Your task to perform on an android device: toggle notification dots Image 0: 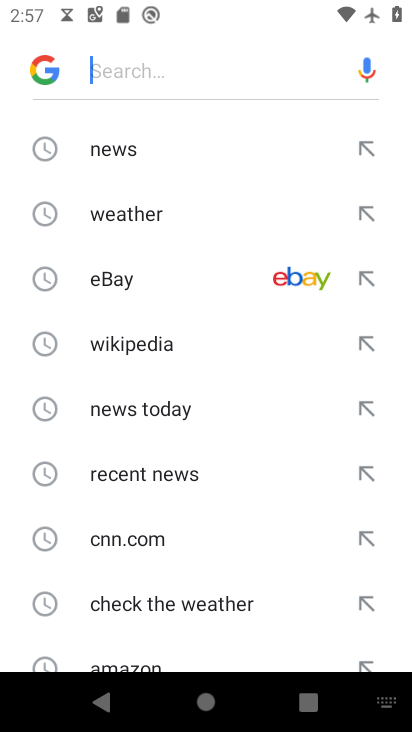
Step 0: press home button
Your task to perform on an android device: toggle notification dots Image 1: 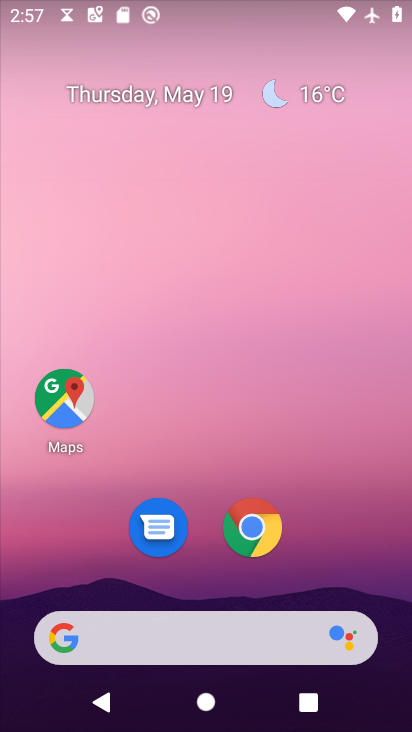
Step 1: drag from (355, 483) to (297, 0)
Your task to perform on an android device: toggle notification dots Image 2: 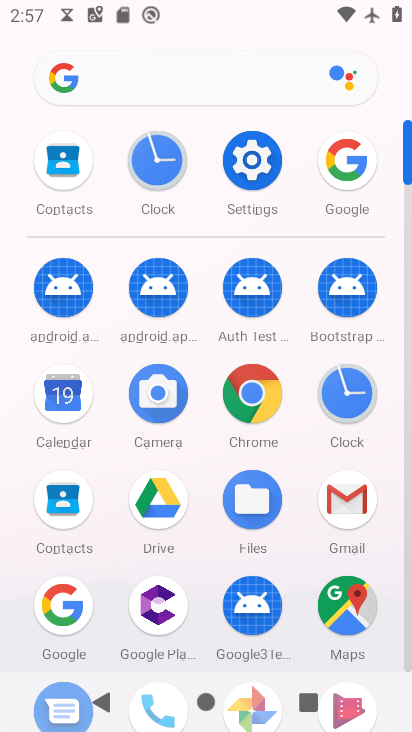
Step 2: click (258, 147)
Your task to perform on an android device: toggle notification dots Image 3: 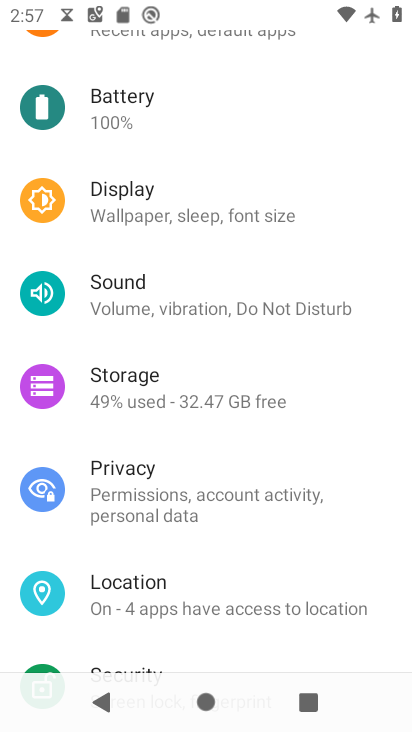
Step 3: drag from (250, 524) to (232, 163)
Your task to perform on an android device: toggle notification dots Image 4: 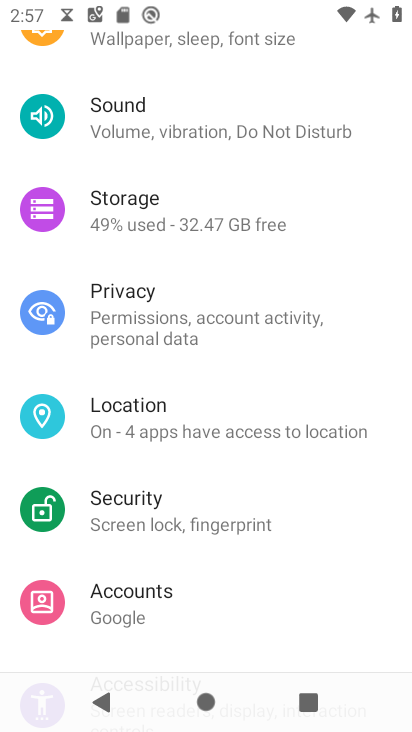
Step 4: drag from (236, 163) to (247, 662)
Your task to perform on an android device: toggle notification dots Image 5: 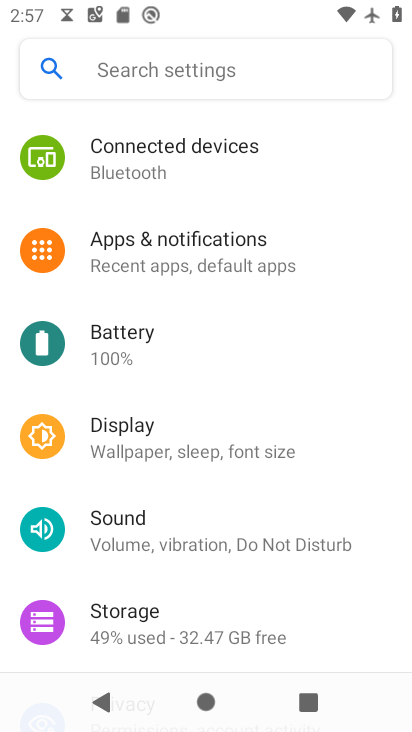
Step 5: drag from (240, 299) to (252, 495)
Your task to perform on an android device: toggle notification dots Image 6: 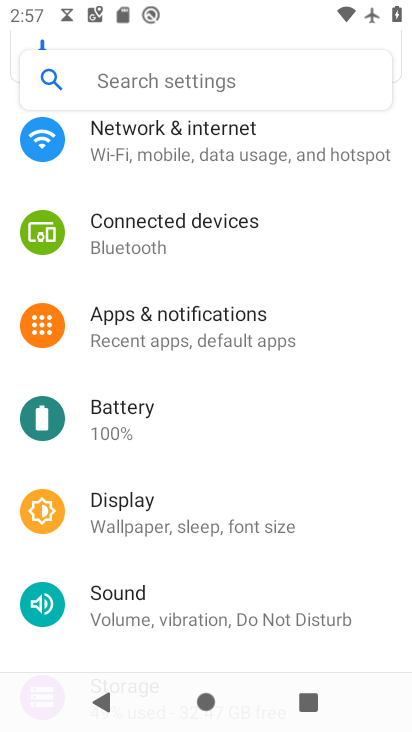
Step 6: click (248, 318)
Your task to perform on an android device: toggle notification dots Image 7: 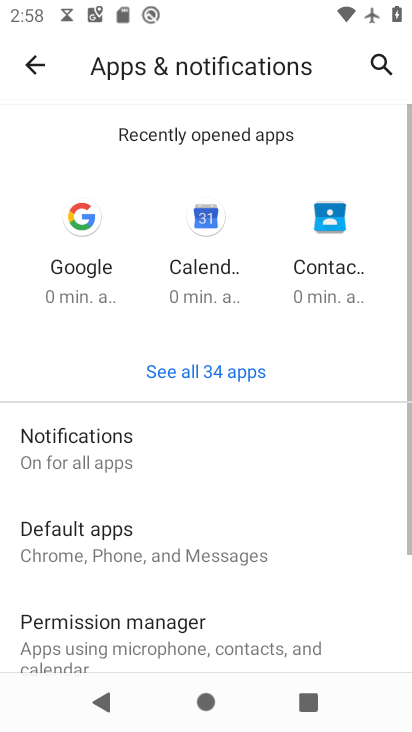
Step 7: click (206, 455)
Your task to perform on an android device: toggle notification dots Image 8: 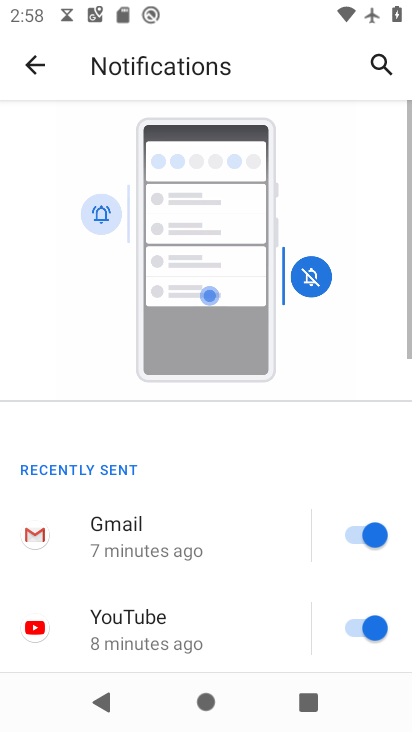
Step 8: drag from (273, 609) to (228, 156)
Your task to perform on an android device: toggle notification dots Image 9: 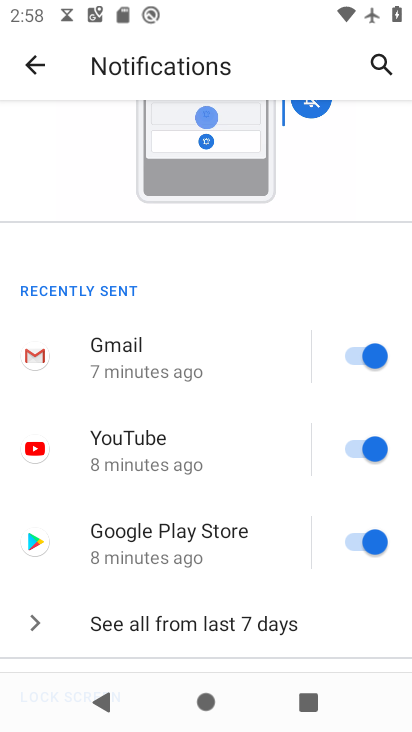
Step 9: drag from (226, 613) to (223, 228)
Your task to perform on an android device: toggle notification dots Image 10: 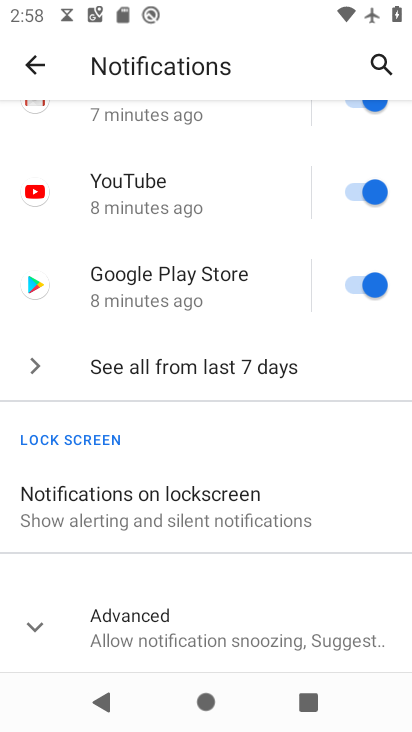
Step 10: click (211, 620)
Your task to perform on an android device: toggle notification dots Image 11: 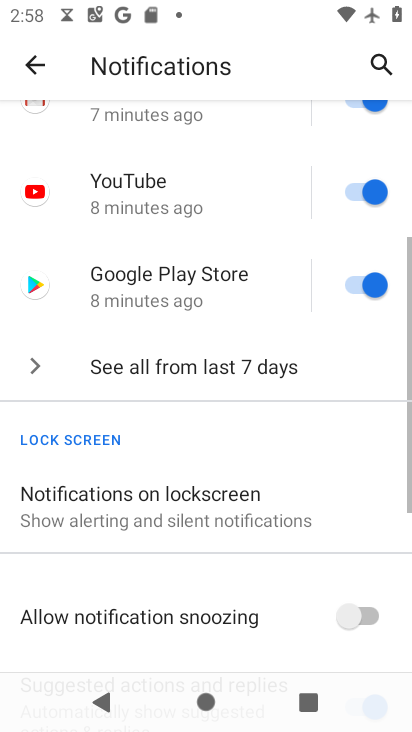
Step 11: drag from (252, 569) to (254, 117)
Your task to perform on an android device: toggle notification dots Image 12: 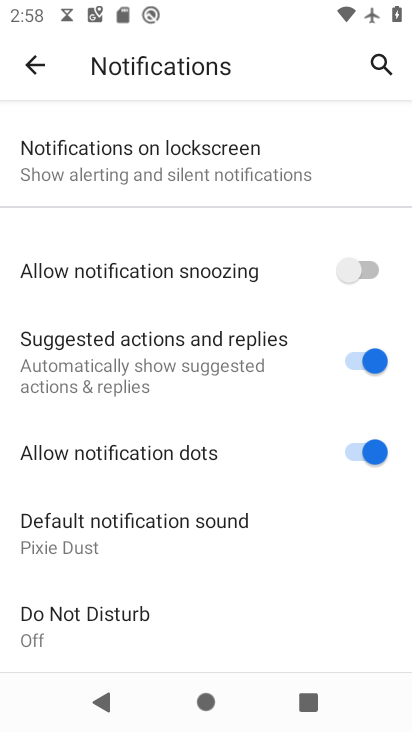
Step 12: click (363, 461)
Your task to perform on an android device: toggle notification dots Image 13: 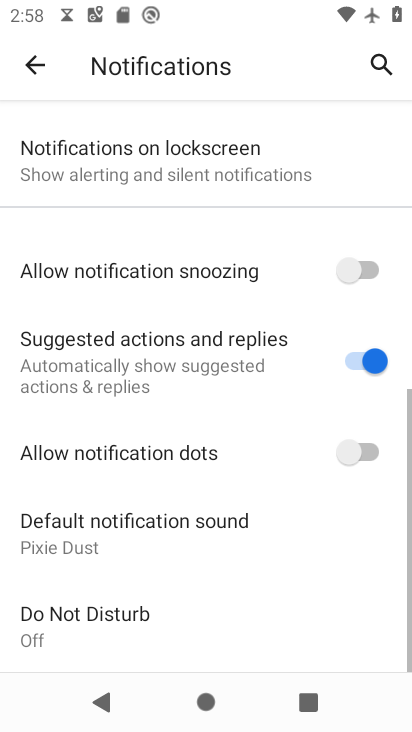
Step 13: task complete